Your task to perform on an android device: toggle show notifications on the lock screen Image 0: 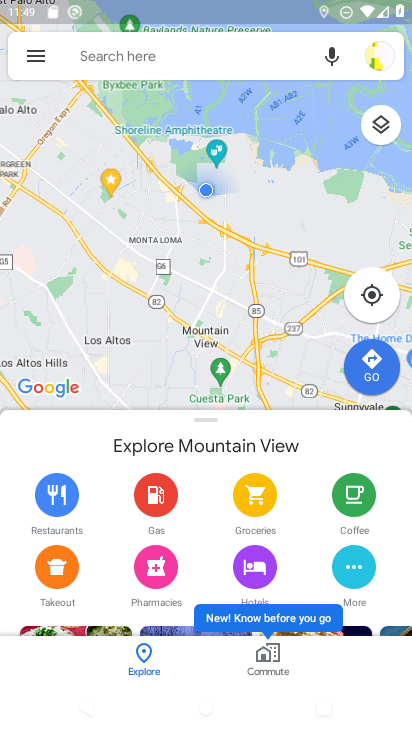
Step 0: press home button
Your task to perform on an android device: toggle show notifications on the lock screen Image 1: 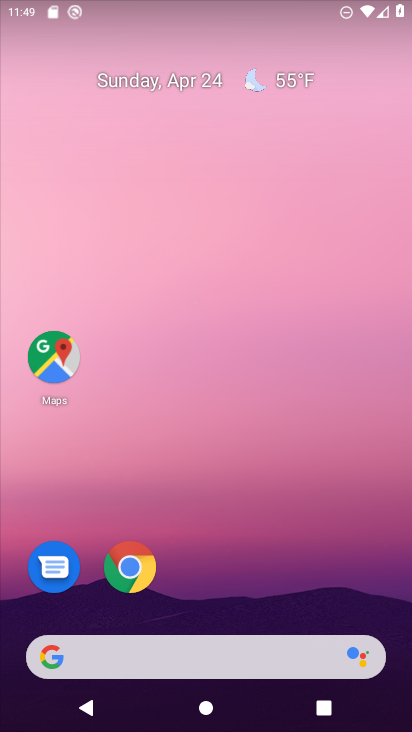
Step 1: click (331, 273)
Your task to perform on an android device: toggle show notifications on the lock screen Image 2: 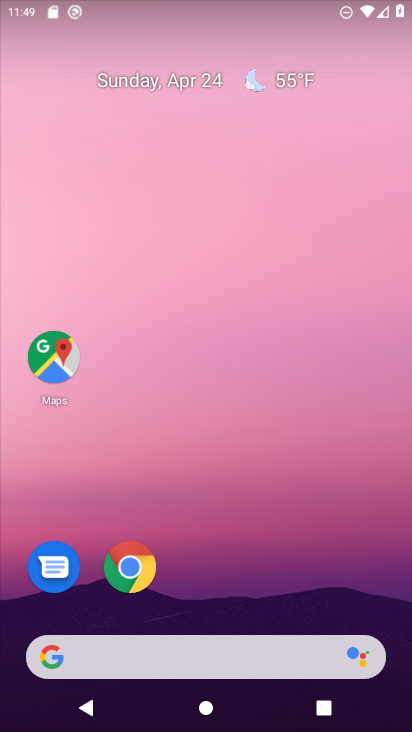
Step 2: drag from (389, 530) to (351, 170)
Your task to perform on an android device: toggle show notifications on the lock screen Image 3: 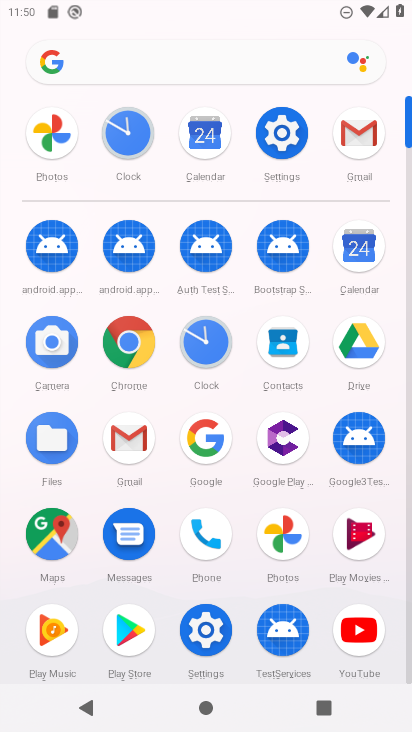
Step 3: click (275, 144)
Your task to perform on an android device: toggle show notifications on the lock screen Image 4: 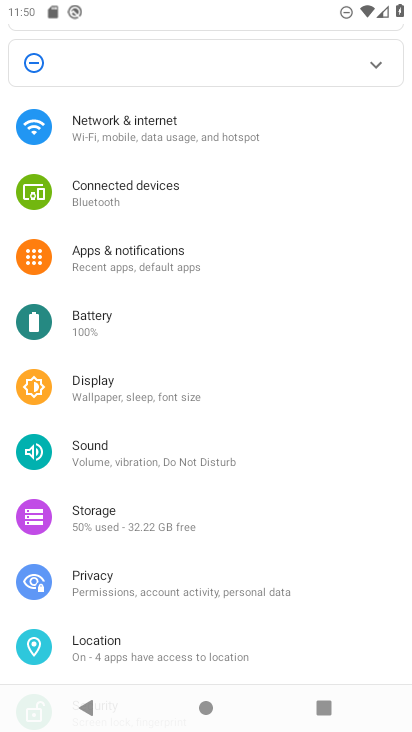
Step 4: click (126, 257)
Your task to perform on an android device: toggle show notifications on the lock screen Image 5: 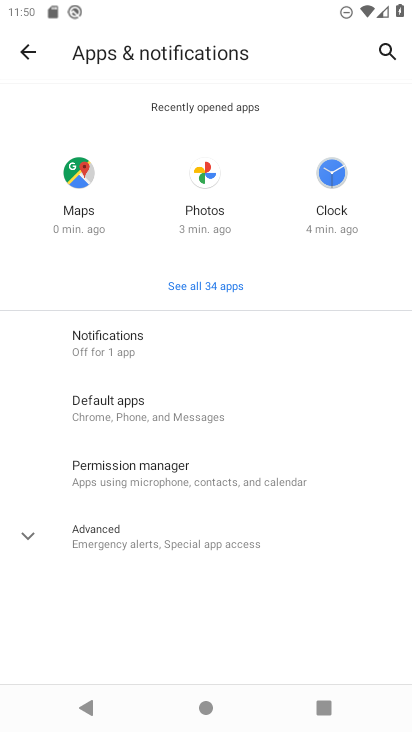
Step 5: click (114, 346)
Your task to perform on an android device: toggle show notifications on the lock screen Image 6: 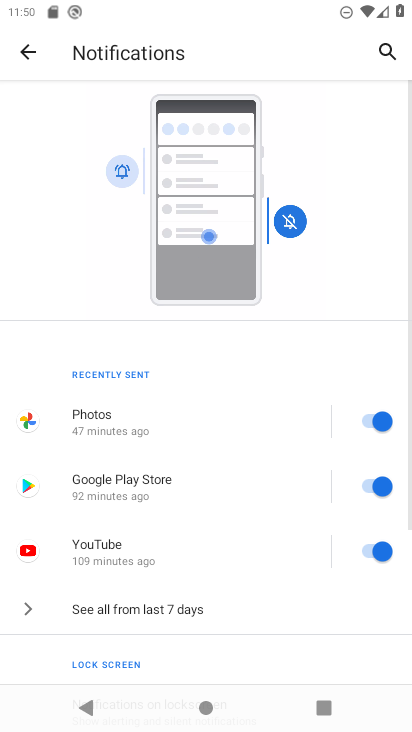
Step 6: drag from (276, 656) to (268, 232)
Your task to perform on an android device: toggle show notifications on the lock screen Image 7: 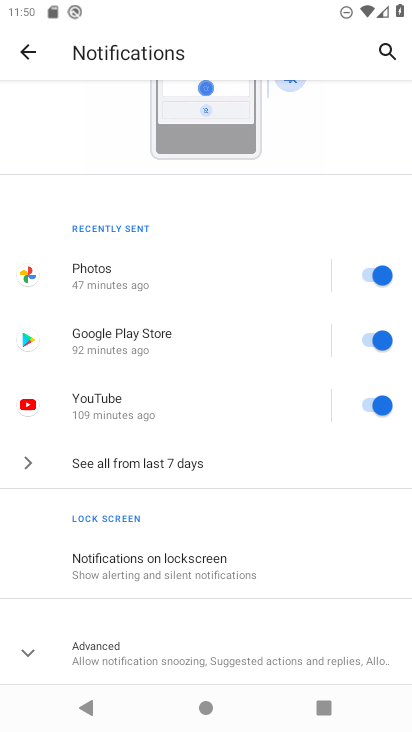
Step 7: drag from (238, 466) to (232, 304)
Your task to perform on an android device: toggle show notifications on the lock screen Image 8: 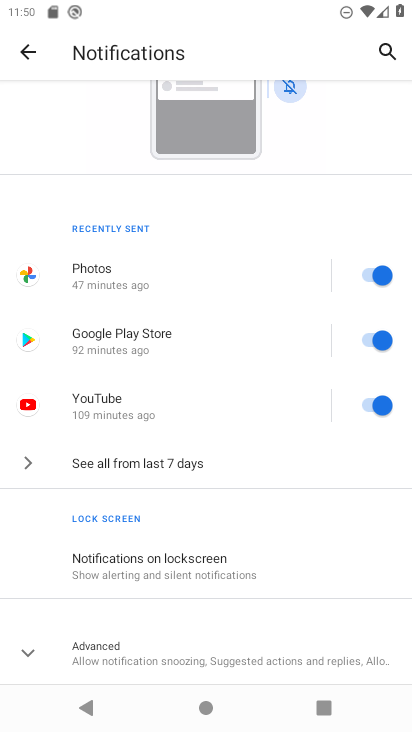
Step 8: click (145, 565)
Your task to perform on an android device: toggle show notifications on the lock screen Image 9: 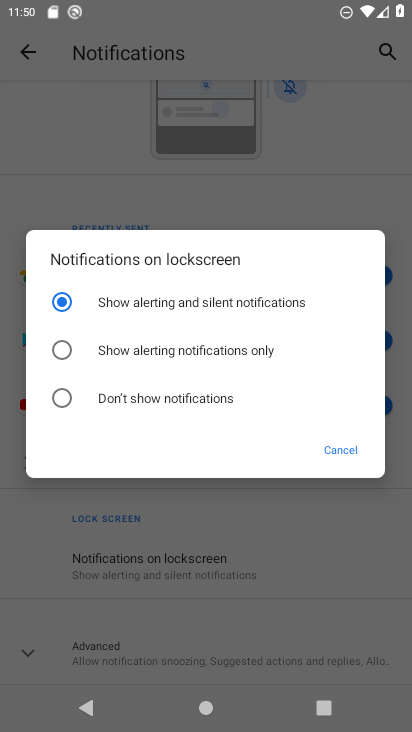
Step 9: click (65, 352)
Your task to perform on an android device: toggle show notifications on the lock screen Image 10: 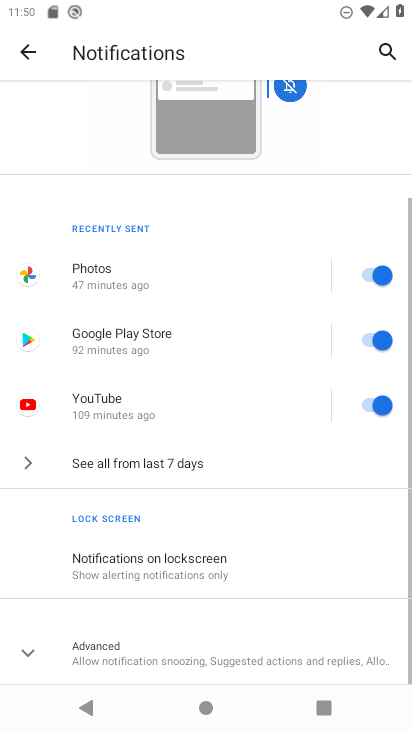
Step 10: task complete